Your task to perform on an android device: empty trash in the gmail app Image 0: 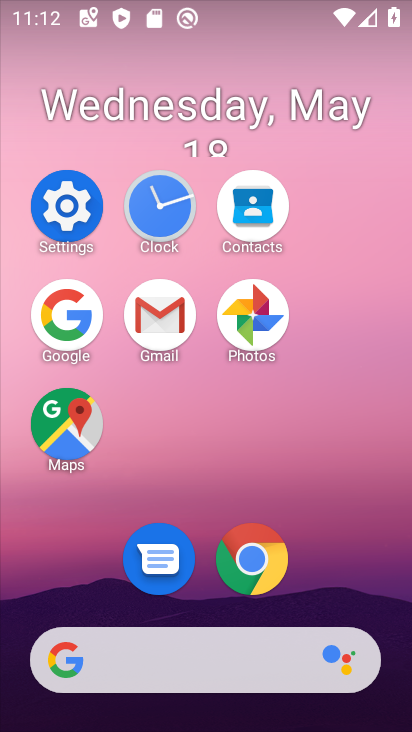
Step 0: click (153, 321)
Your task to perform on an android device: empty trash in the gmail app Image 1: 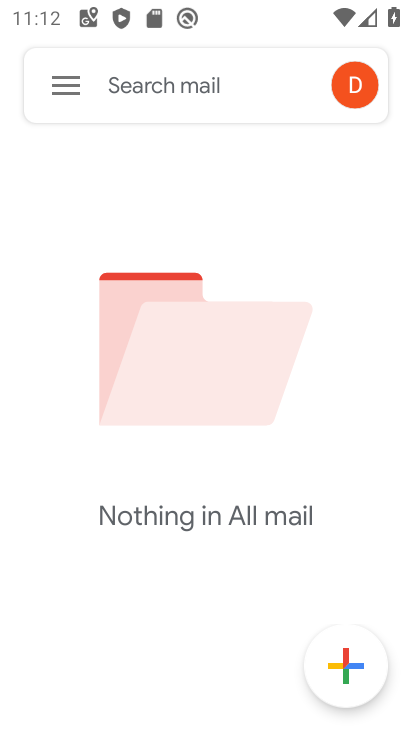
Step 1: click (70, 101)
Your task to perform on an android device: empty trash in the gmail app Image 2: 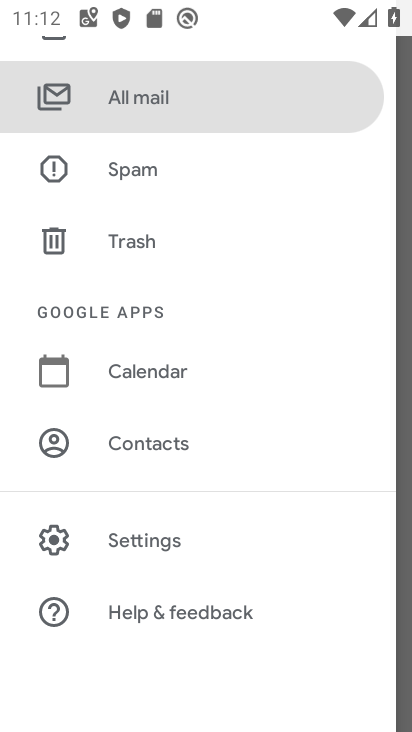
Step 2: drag from (228, 197) to (239, 467)
Your task to perform on an android device: empty trash in the gmail app Image 3: 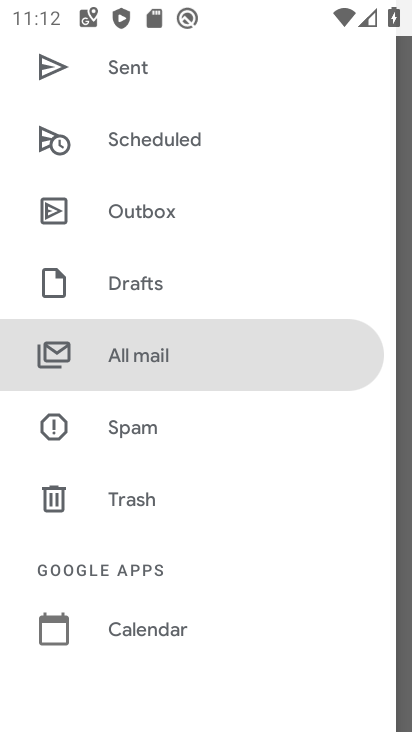
Step 3: click (155, 491)
Your task to perform on an android device: empty trash in the gmail app Image 4: 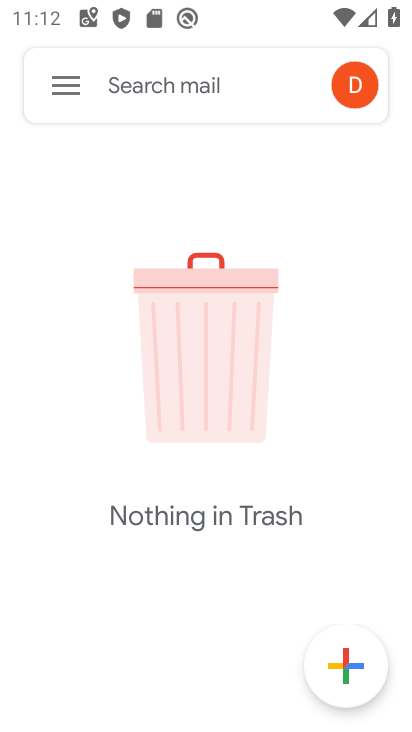
Step 4: task complete